Your task to perform on an android device: check android version Image 0: 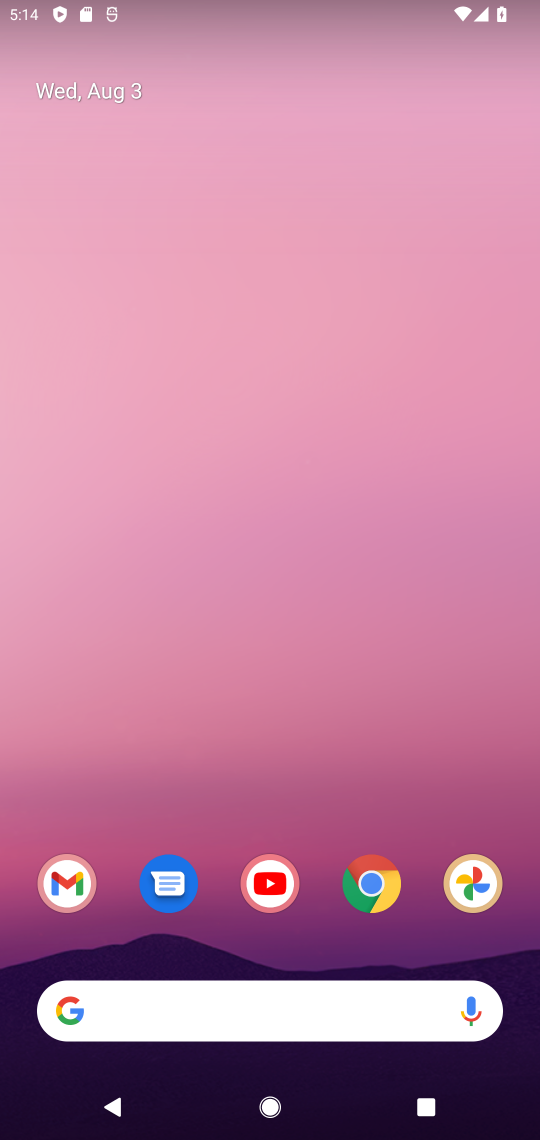
Step 0: drag from (227, 908) to (347, 211)
Your task to perform on an android device: check android version Image 1: 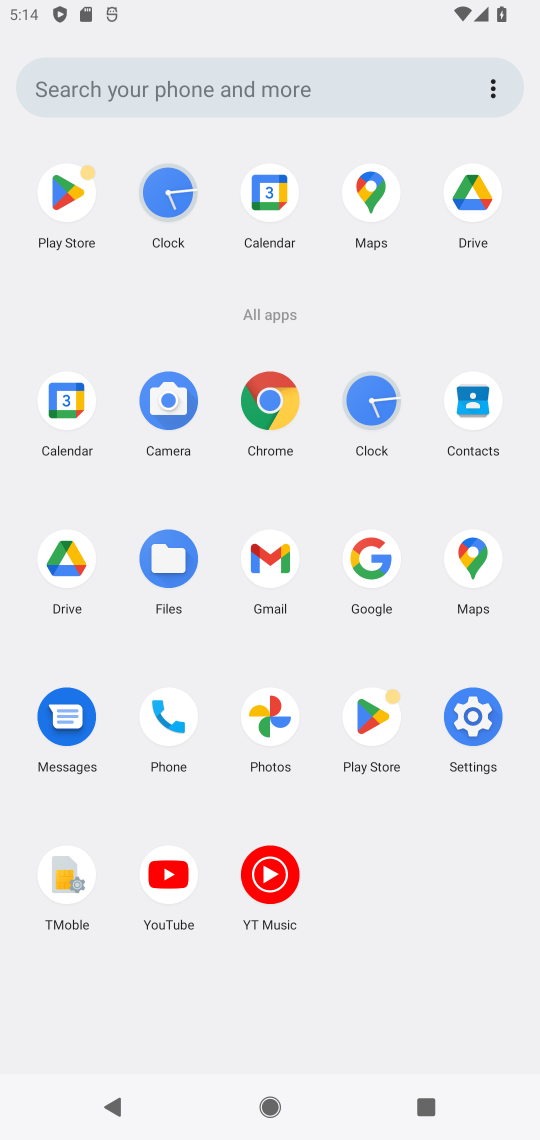
Step 1: click (465, 726)
Your task to perform on an android device: check android version Image 2: 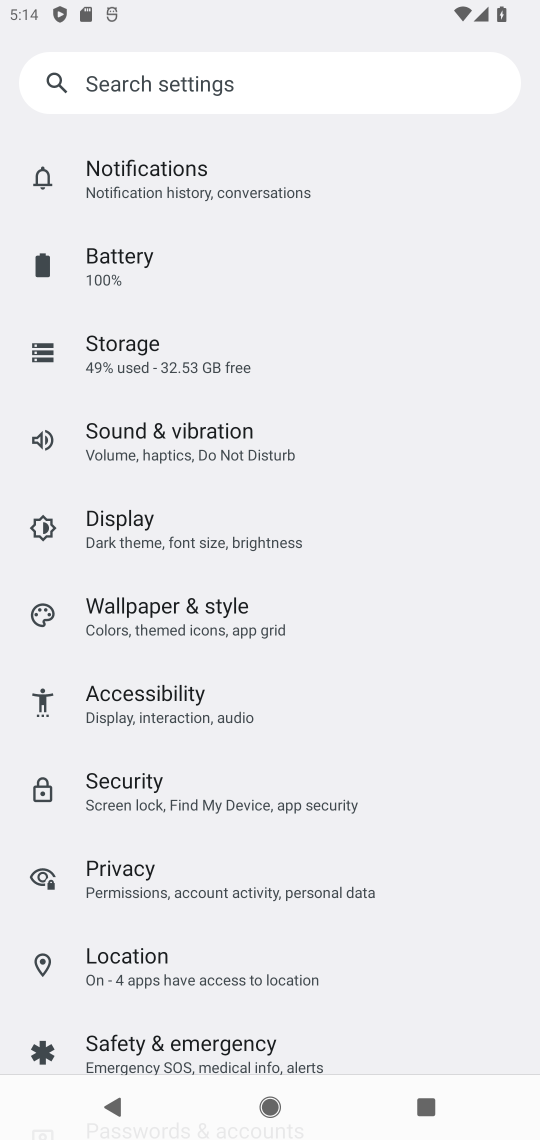
Step 2: drag from (251, 919) to (287, 388)
Your task to perform on an android device: check android version Image 3: 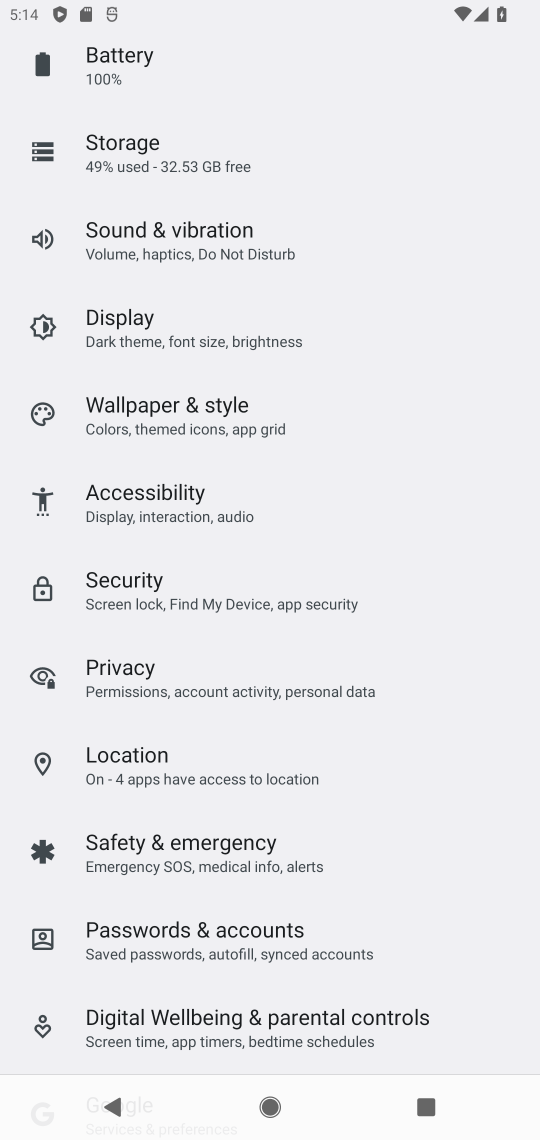
Step 3: drag from (220, 1036) to (281, 446)
Your task to perform on an android device: check android version Image 4: 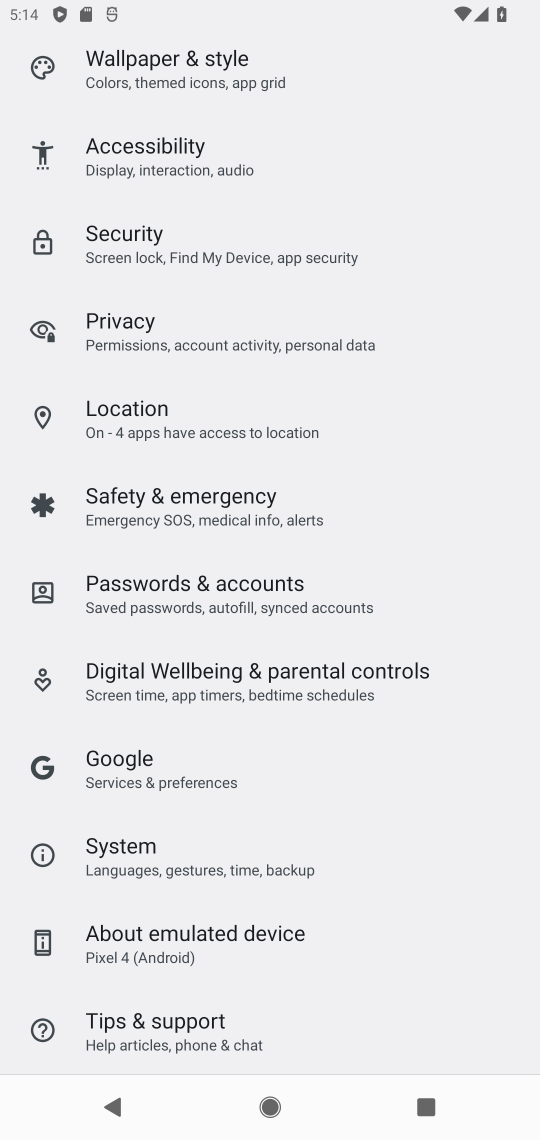
Step 4: drag from (169, 970) to (199, 427)
Your task to perform on an android device: check android version Image 5: 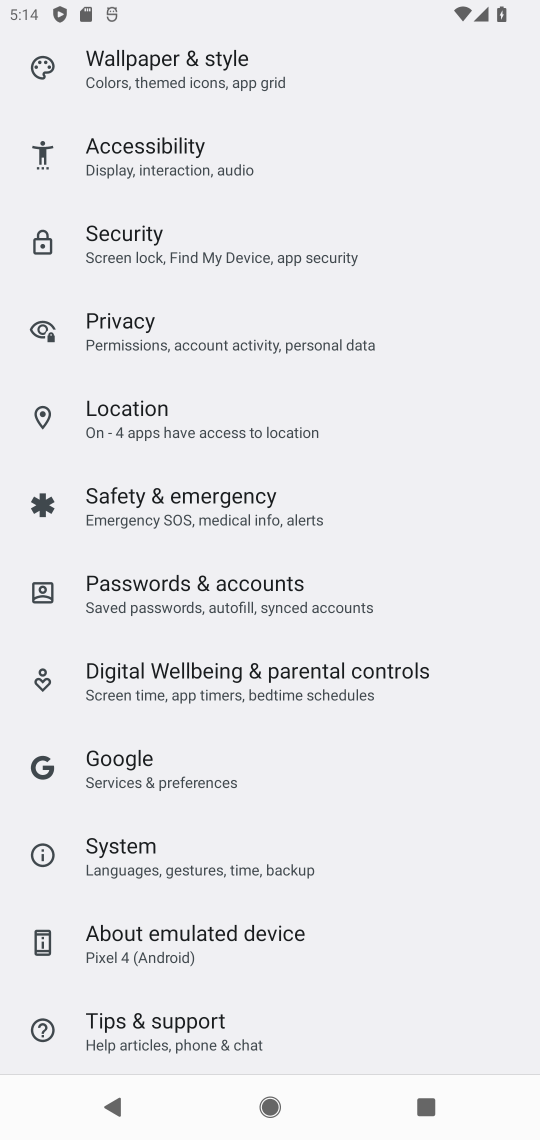
Step 5: click (131, 941)
Your task to perform on an android device: check android version Image 6: 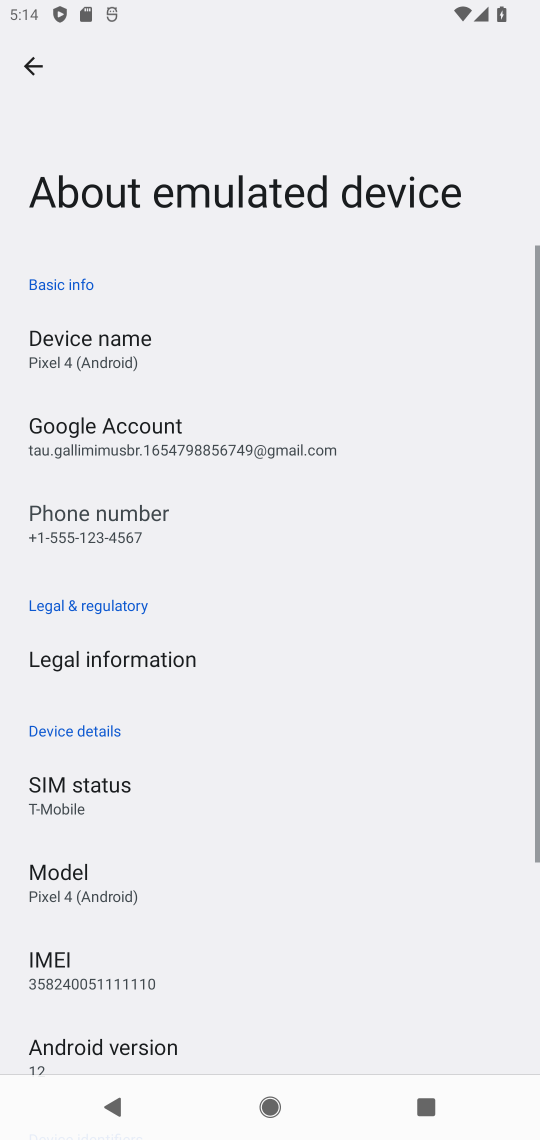
Step 6: drag from (128, 919) to (130, 359)
Your task to perform on an android device: check android version Image 7: 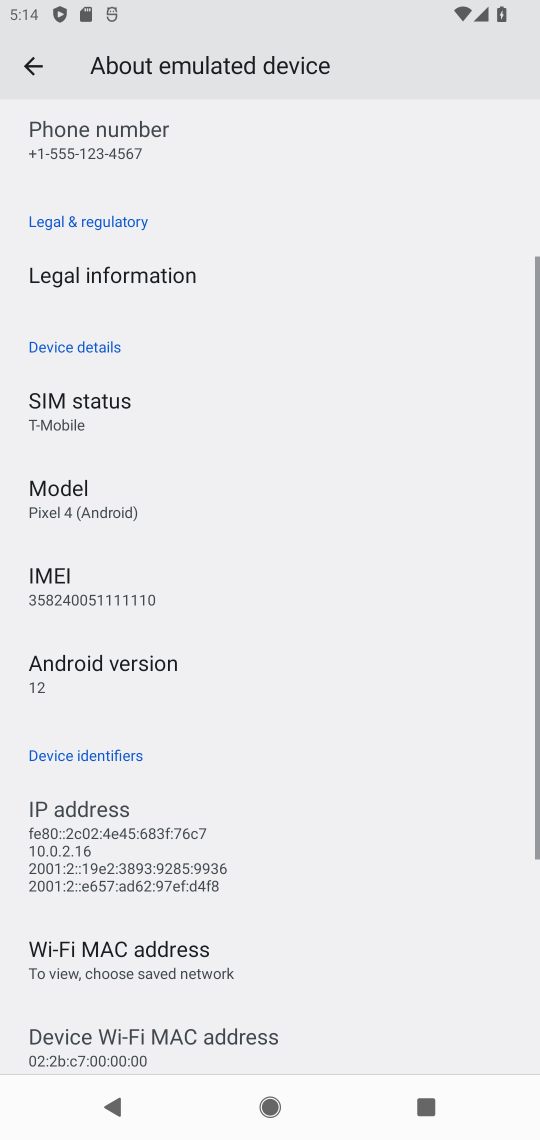
Step 7: drag from (127, 977) to (83, 549)
Your task to perform on an android device: check android version Image 8: 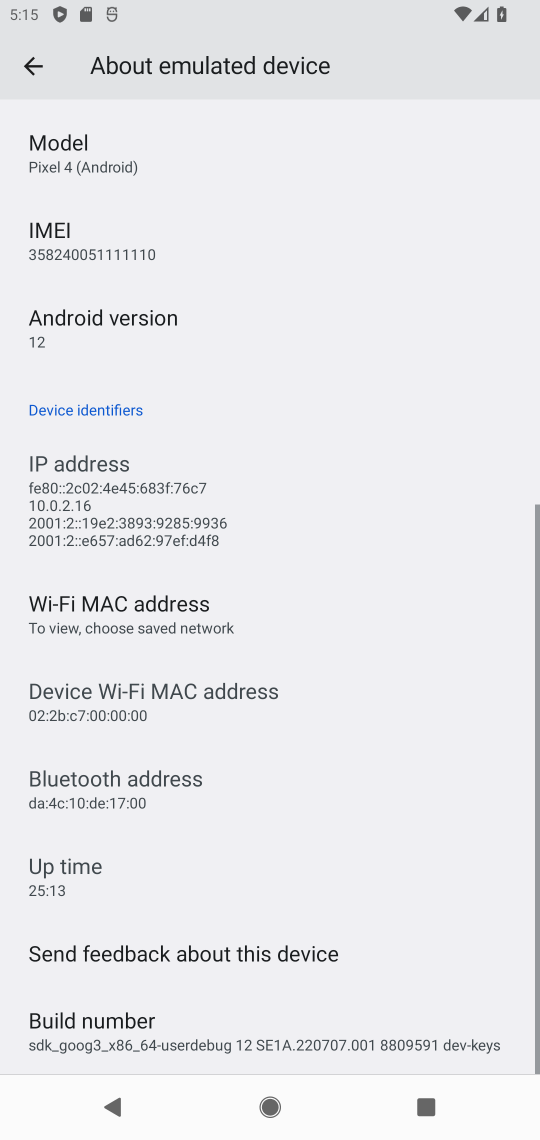
Step 8: drag from (124, 1000) to (116, 567)
Your task to perform on an android device: check android version Image 9: 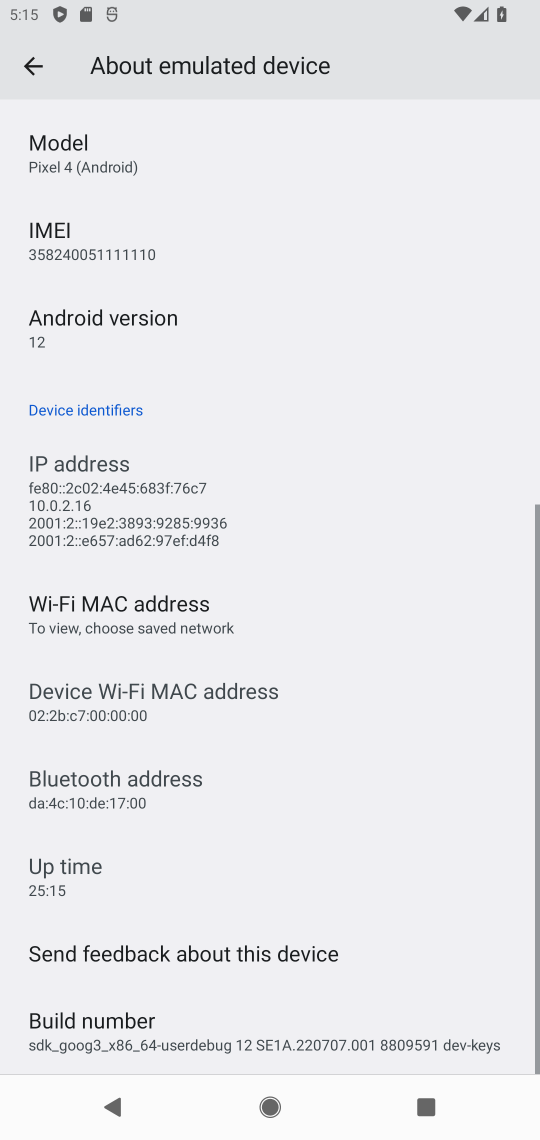
Step 9: click (79, 324)
Your task to perform on an android device: check android version Image 10: 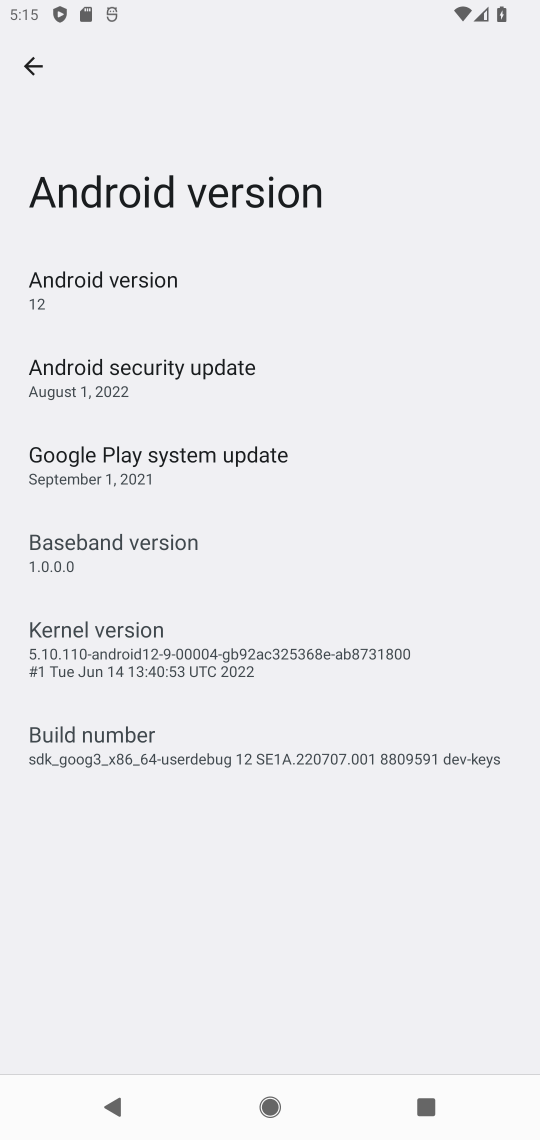
Step 10: task complete